Your task to perform on an android device: change notifications settings Image 0: 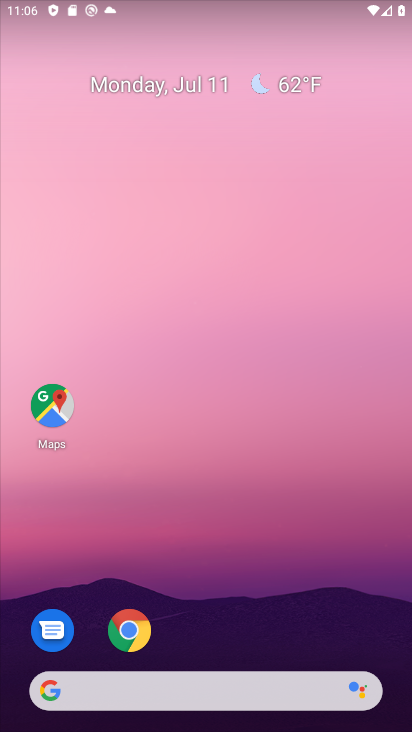
Step 0: drag from (270, 690) to (364, 93)
Your task to perform on an android device: change notifications settings Image 1: 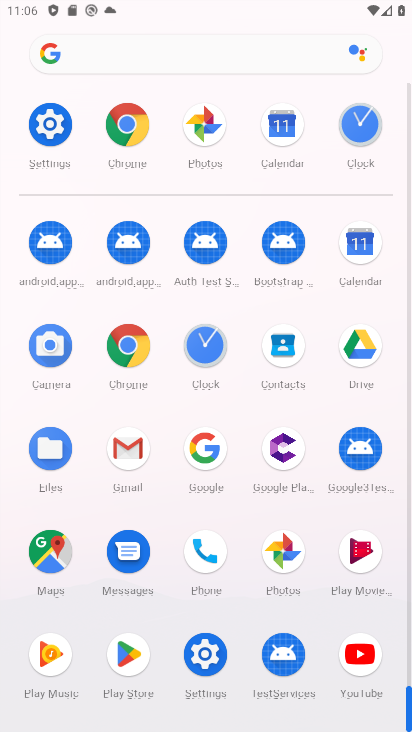
Step 1: click (36, 123)
Your task to perform on an android device: change notifications settings Image 2: 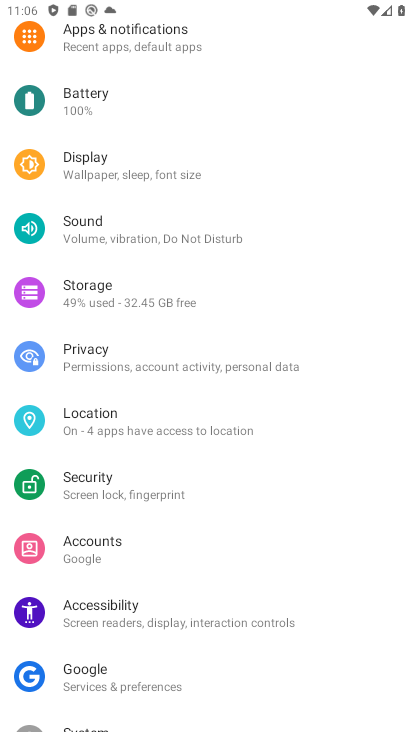
Step 2: click (169, 32)
Your task to perform on an android device: change notifications settings Image 3: 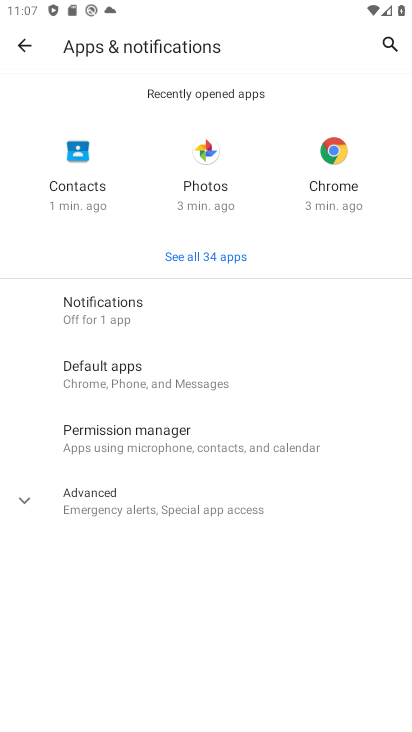
Step 3: click (141, 310)
Your task to perform on an android device: change notifications settings Image 4: 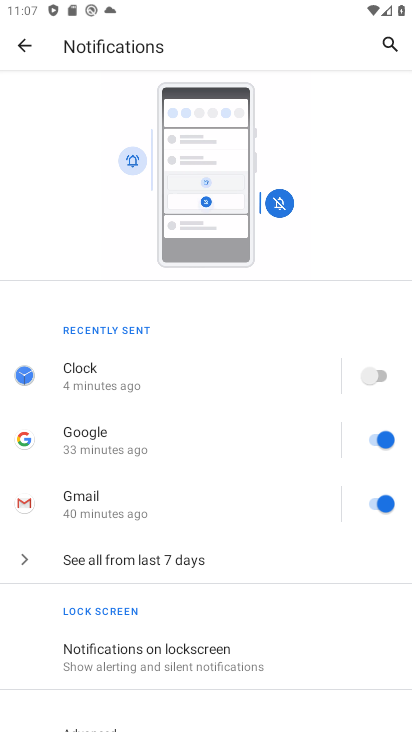
Step 4: task complete